Your task to perform on an android device: change the clock display to digital Image 0: 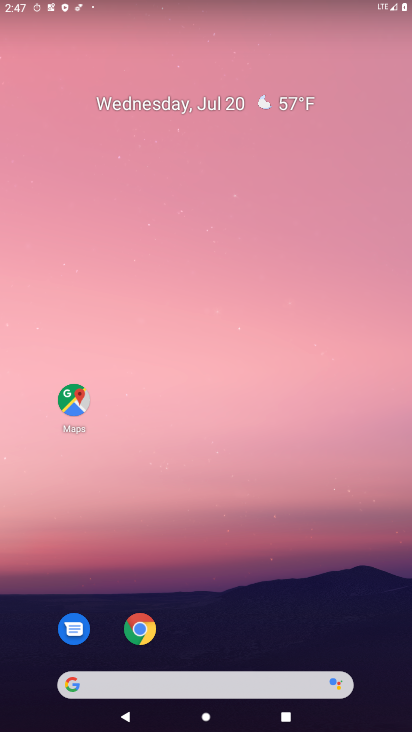
Step 0: drag from (223, 688) to (167, 261)
Your task to perform on an android device: change the clock display to digital Image 1: 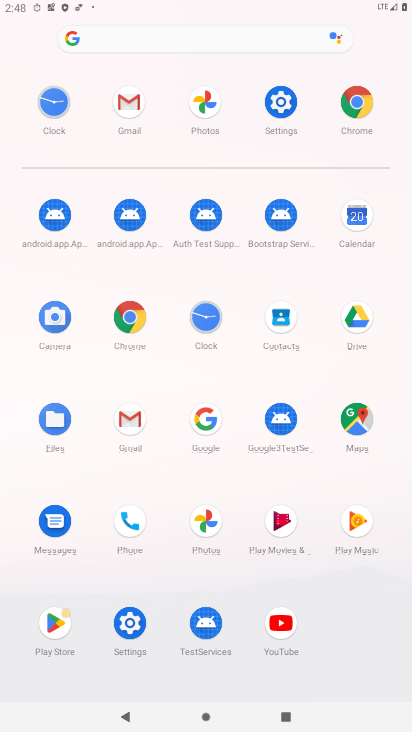
Step 1: click (205, 326)
Your task to perform on an android device: change the clock display to digital Image 2: 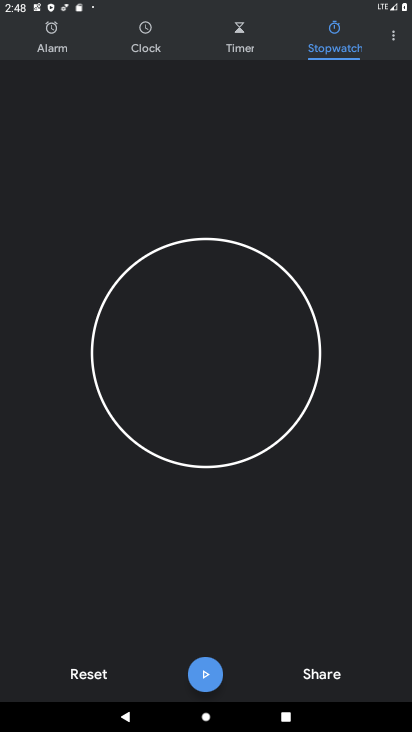
Step 2: click (399, 43)
Your task to perform on an android device: change the clock display to digital Image 3: 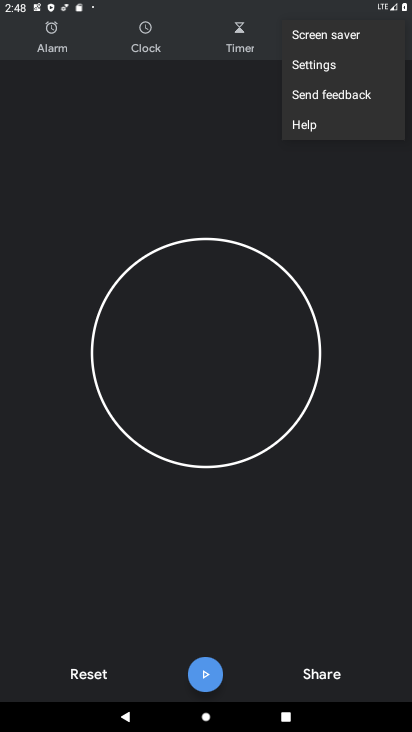
Step 3: click (329, 68)
Your task to perform on an android device: change the clock display to digital Image 4: 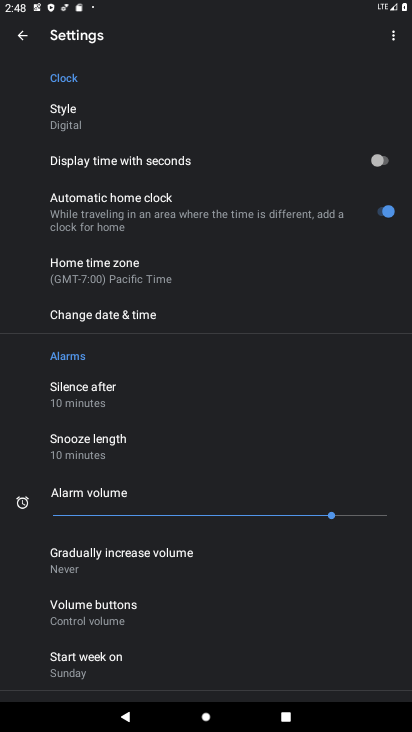
Step 4: click (92, 123)
Your task to perform on an android device: change the clock display to digital Image 5: 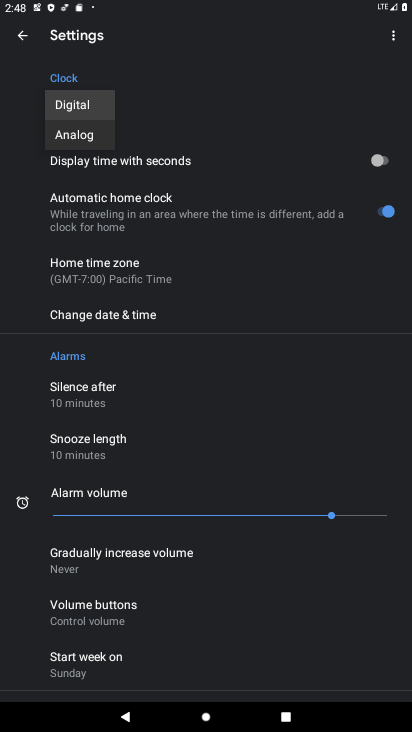
Step 5: click (77, 110)
Your task to perform on an android device: change the clock display to digital Image 6: 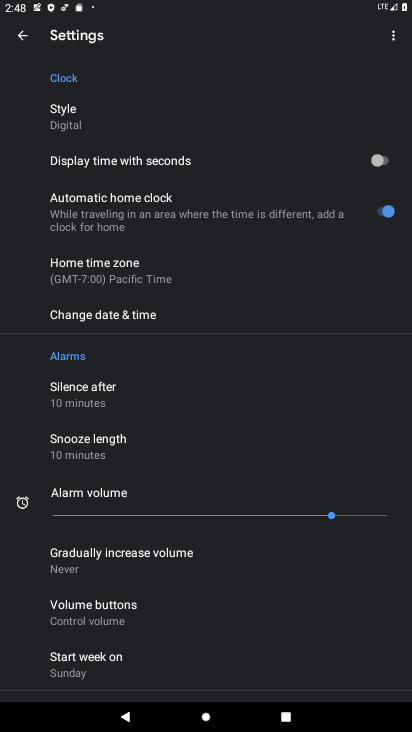
Step 6: task complete